Your task to perform on an android device: Open Google Maps Image 0: 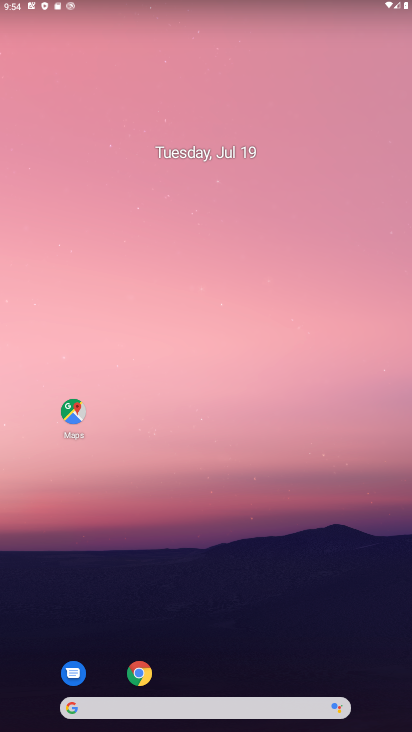
Step 0: click (67, 412)
Your task to perform on an android device: Open Google Maps Image 1: 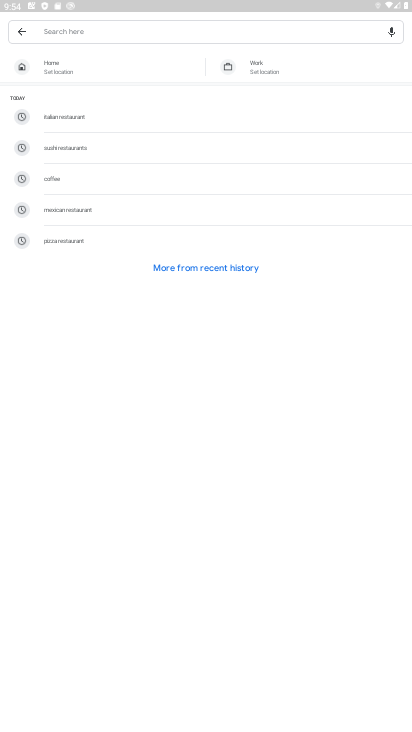
Step 1: task complete